Your task to perform on an android device: open wifi settings Image 0: 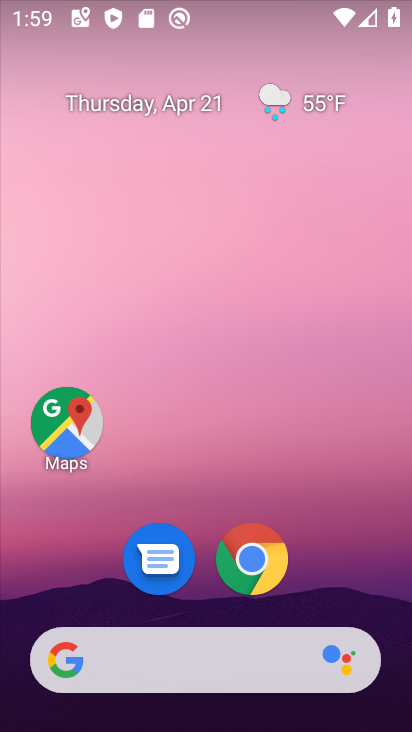
Step 0: drag from (293, 88) to (253, 584)
Your task to perform on an android device: open wifi settings Image 1: 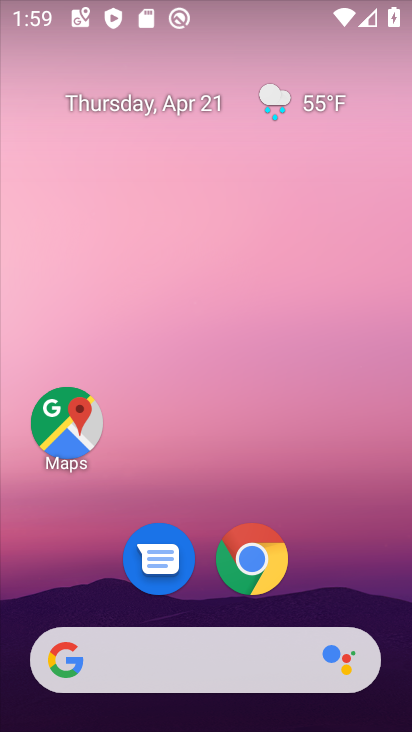
Step 1: drag from (279, 0) to (248, 399)
Your task to perform on an android device: open wifi settings Image 2: 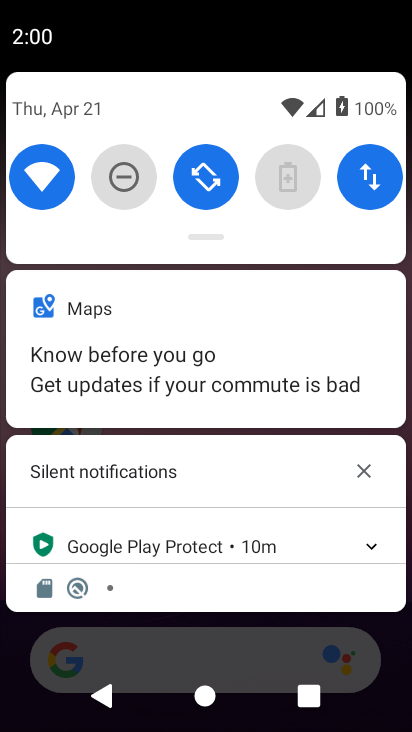
Step 2: click (51, 186)
Your task to perform on an android device: open wifi settings Image 3: 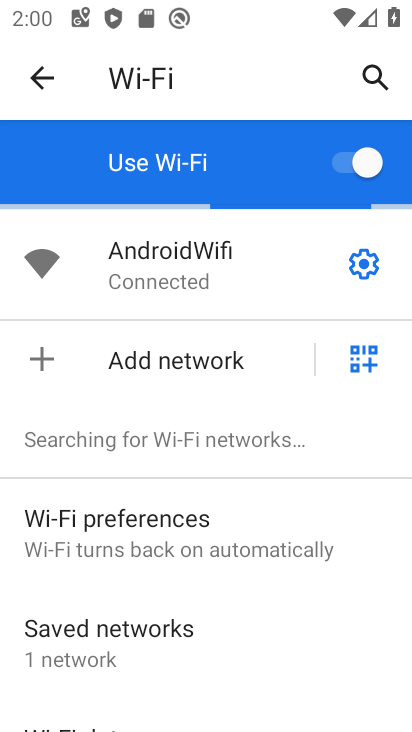
Step 3: task complete